Your task to perform on an android device: Go to ESPN.com Image 0: 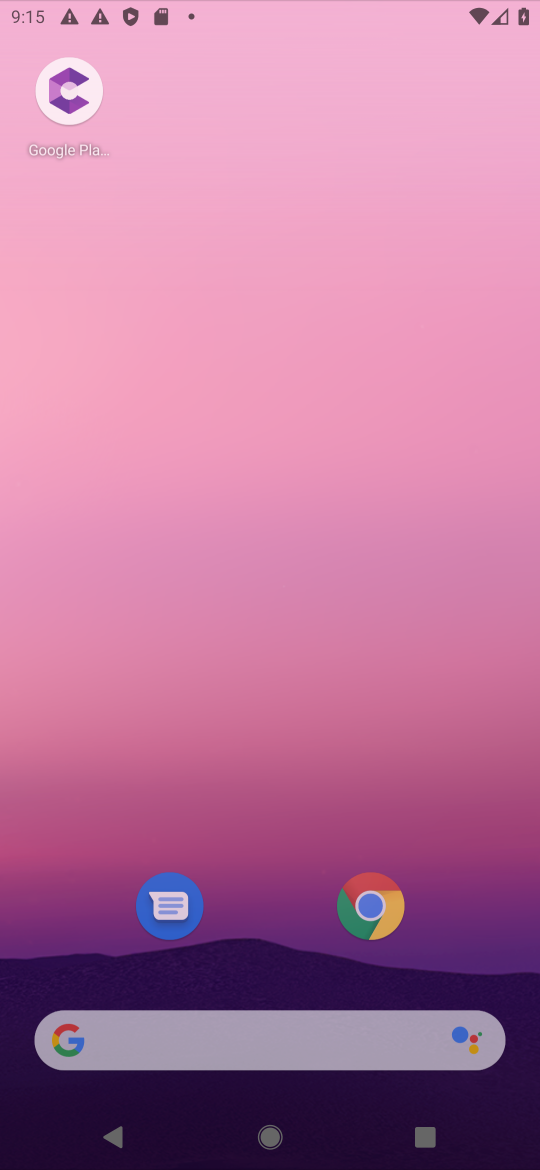
Step 0: press home button
Your task to perform on an android device: Go to ESPN.com Image 1: 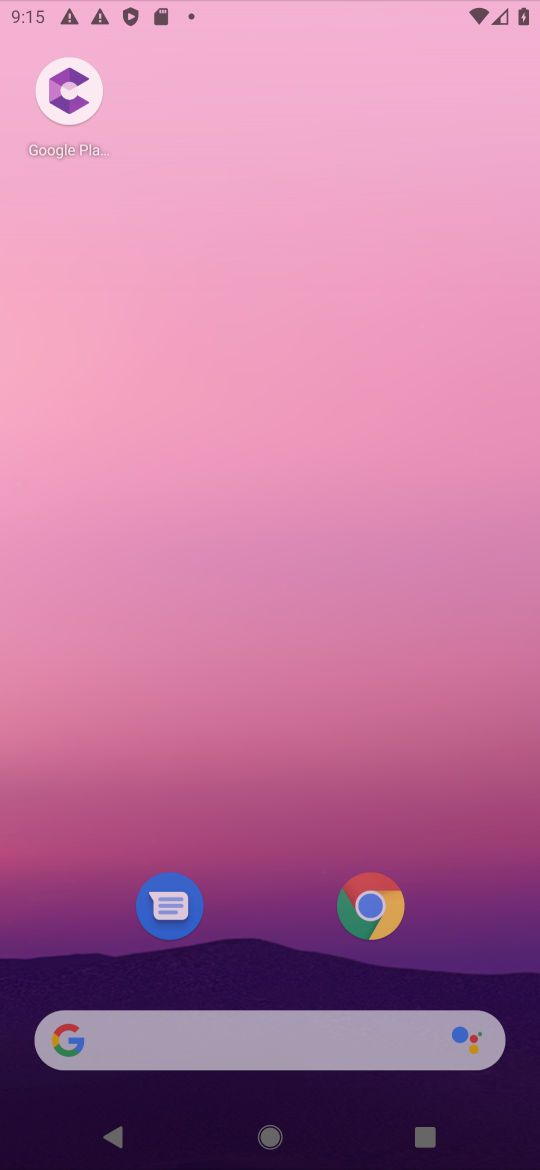
Step 1: click (479, 238)
Your task to perform on an android device: Go to ESPN.com Image 2: 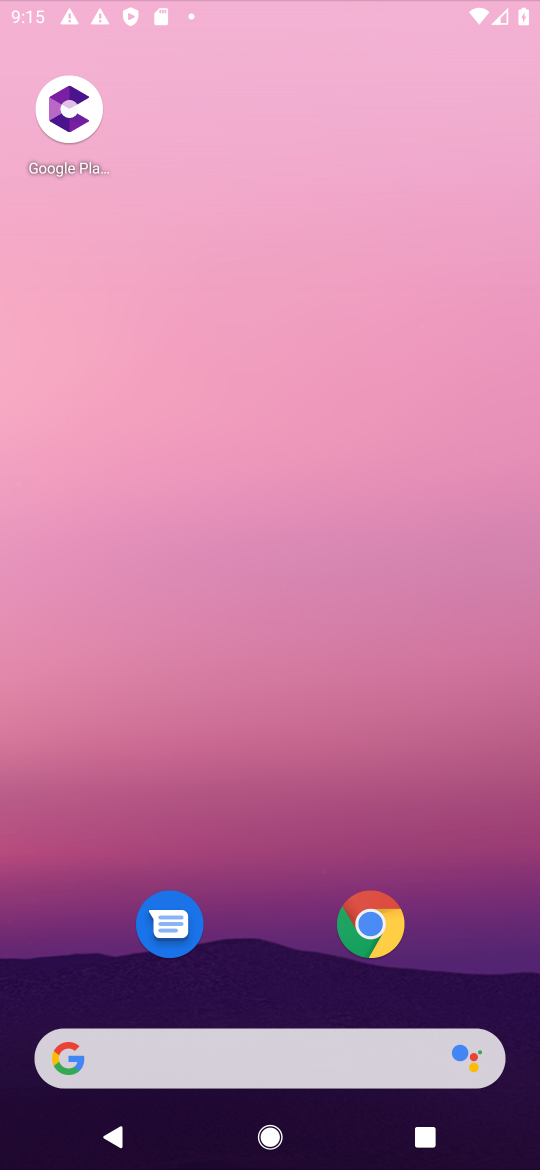
Step 2: drag from (271, 853) to (381, 298)
Your task to perform on an android device: Go to ESPN.com Image 3: 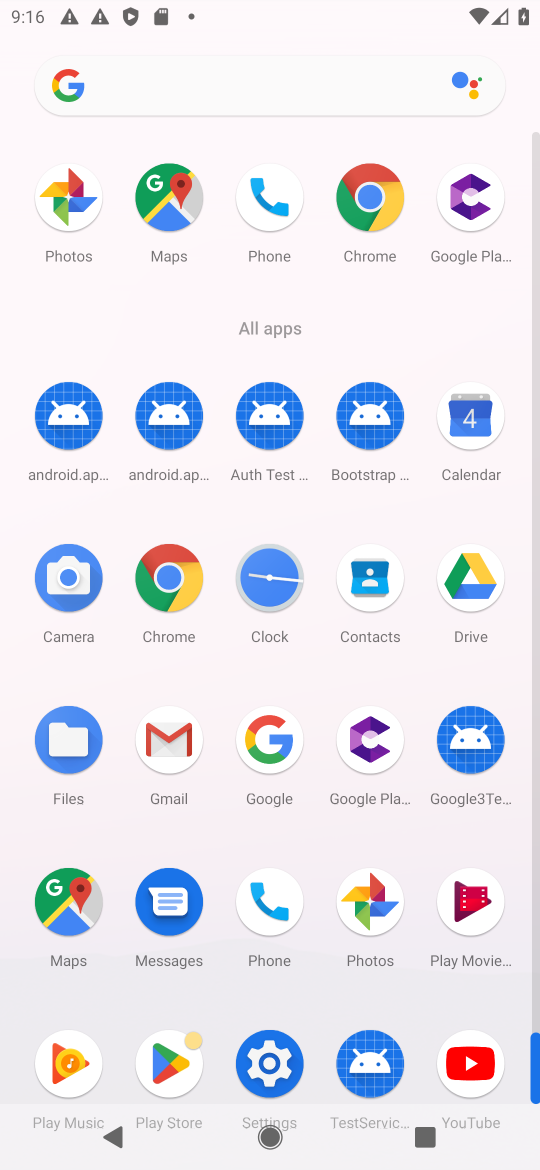
Step 3: click (146, 583)
Your task to perform on an android device: Go to ESPN.com Image 4: 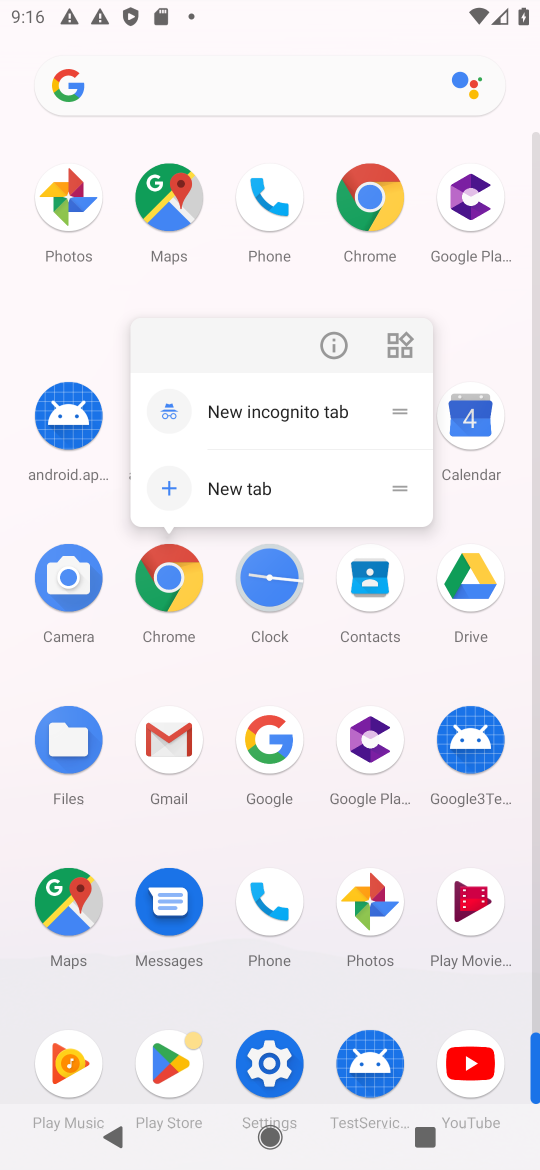
Step 4: click (348, 347)
Your task to perform on an android device: Go to ESPN.com Image 5: 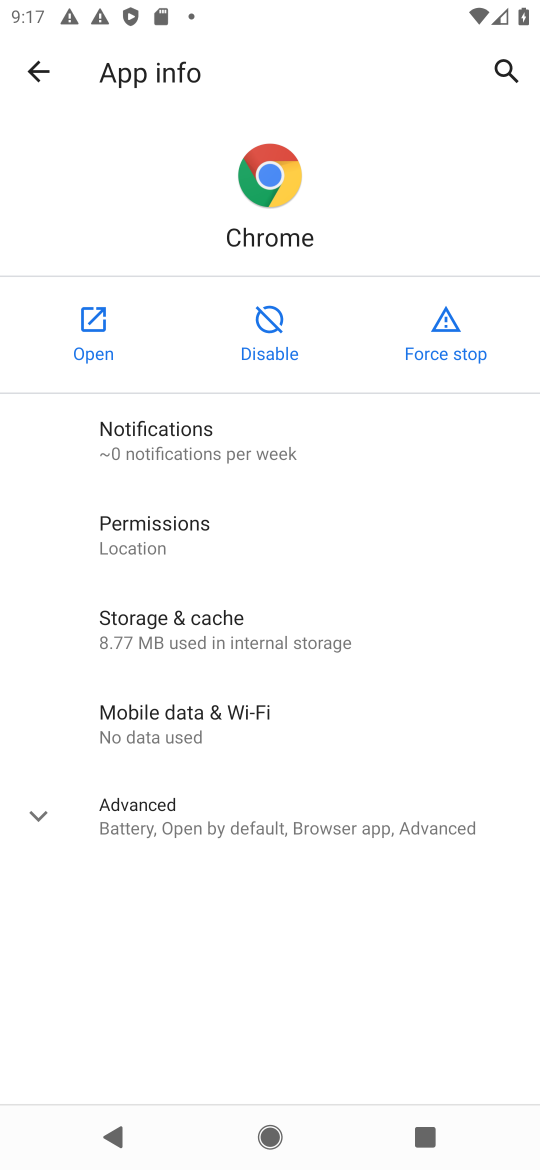
Step 5: click (87, 359)
Your task to perform on an android device: Go to ESPN.com Image 6: 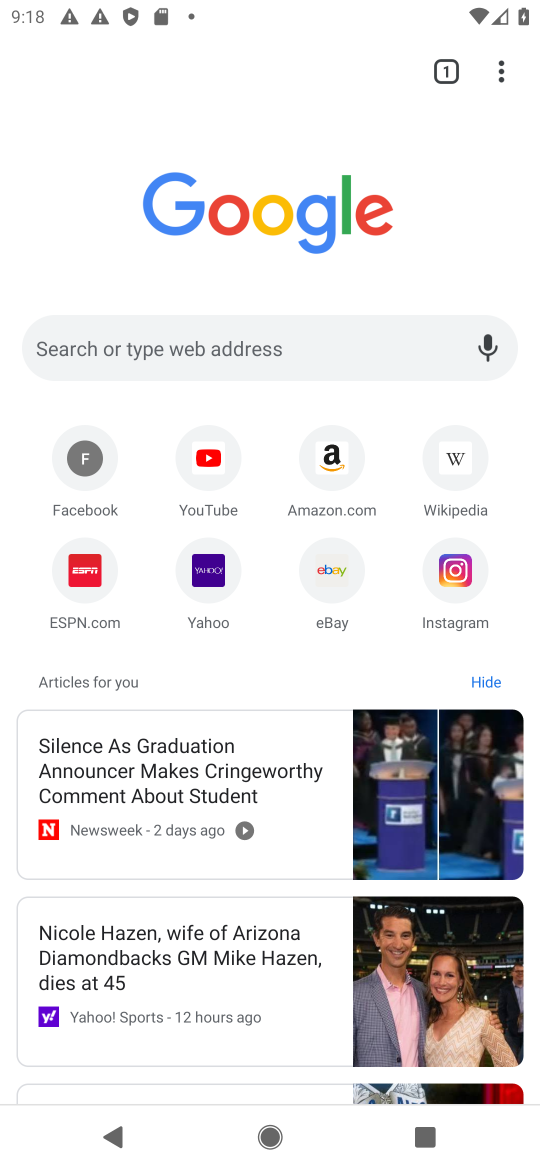
Step 6: drag from (185, 914) to (315, 545)
Your task to perform on an android device: Go to ESPN.com Image 7: 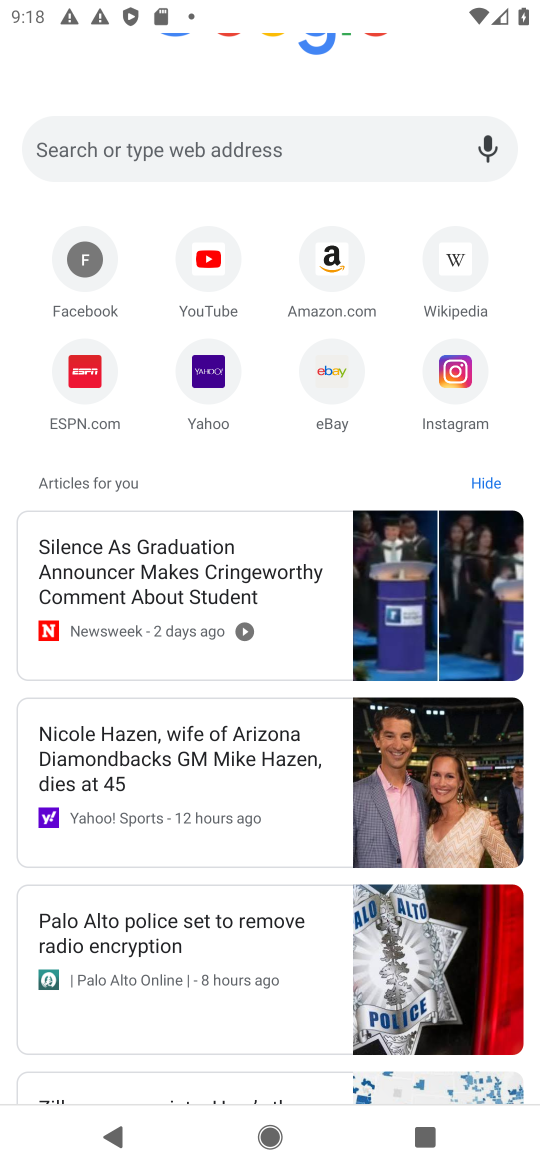
Step 7: click (87, 373)
Your task to perform on an android device: Go to ESPN.com Image 8: 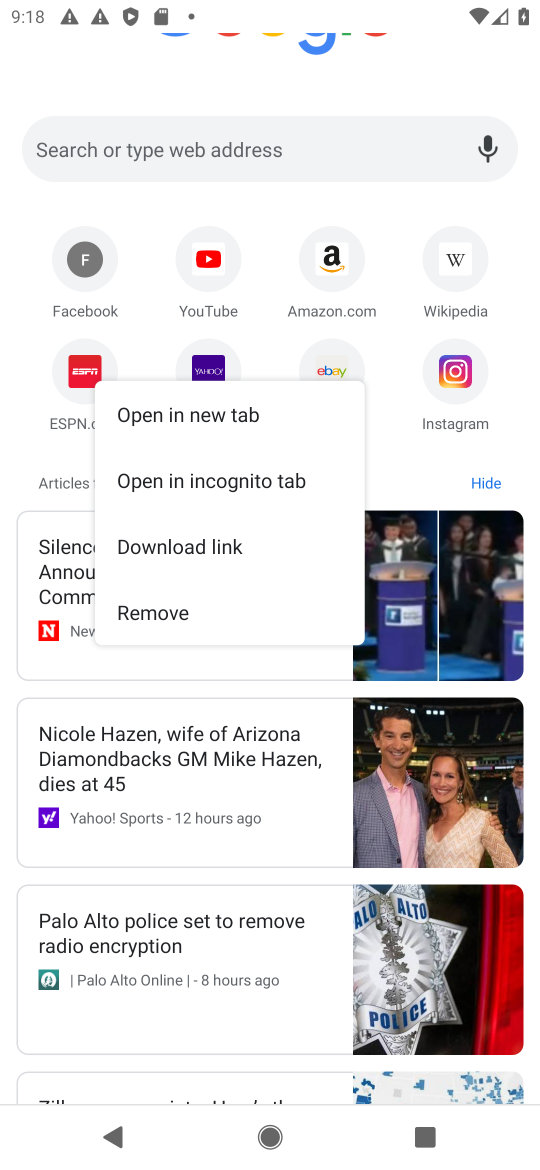
Step 8: task complete